Your task to perform on an android device: open sync settings in chrome Image 0: 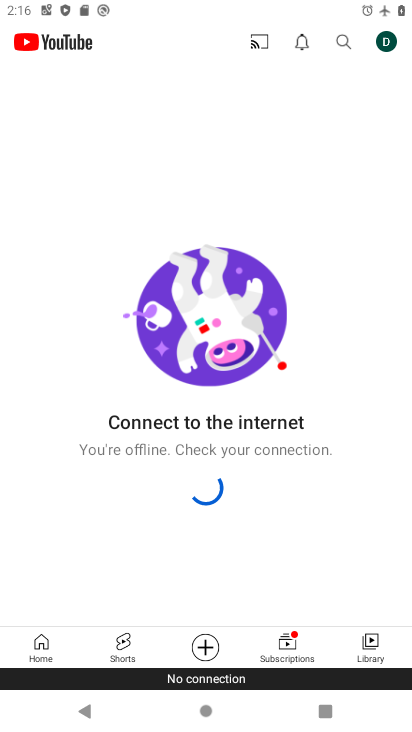
Step 0: drag from (234, 539) to (279, 211)
Your task to perform on an android device: open sync settings in chrome Image 1: 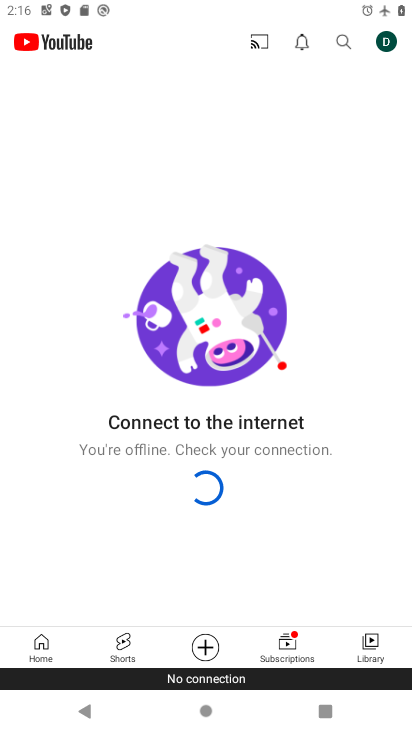
Step 1: drag from (241, 622) to (275, 280)
Your task to perform on an android device: open sync settings in chrome Image 2: 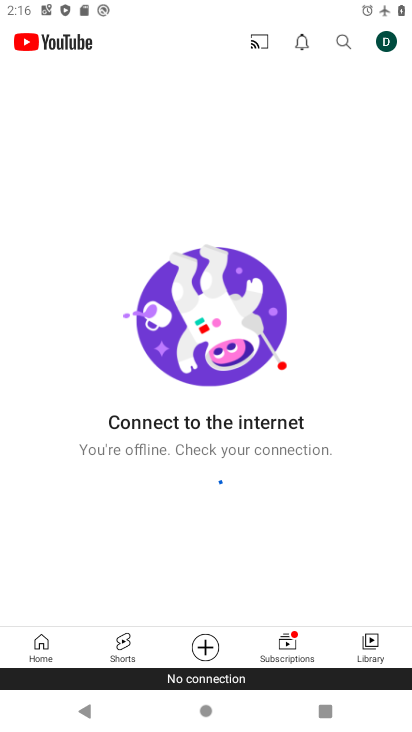
Step 2: drag from (265, 207) to (248, 603)
Your task to perform on an android device: open sync settings in chrome Image 3: 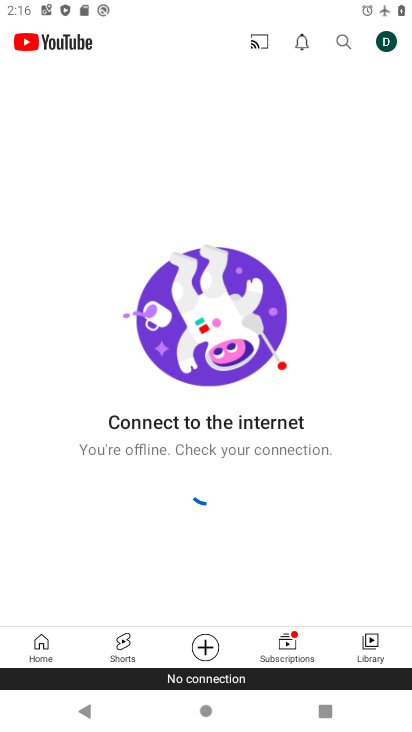
Step 3: drag from (241, 589) to (250, 299)
Your task to perform on an android device: open sync settings in chrome Image 4: 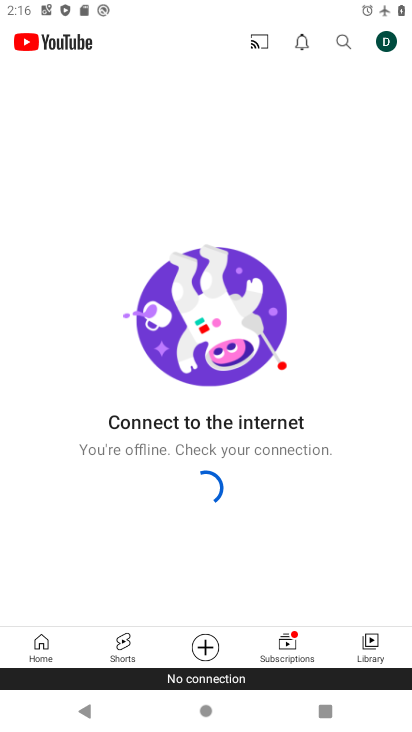
Step 4: drag from (144, 545) to (214, 310)
Your task to perform on an android device: open sync settings in chrome Image 5: 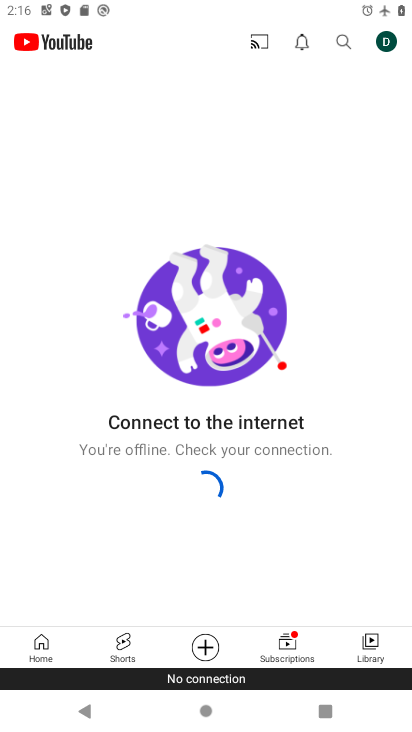
Step 5: drag from (243, 569) to (256, 142)
Your task to perform on an android device: open sync settings in chrome Image 6: 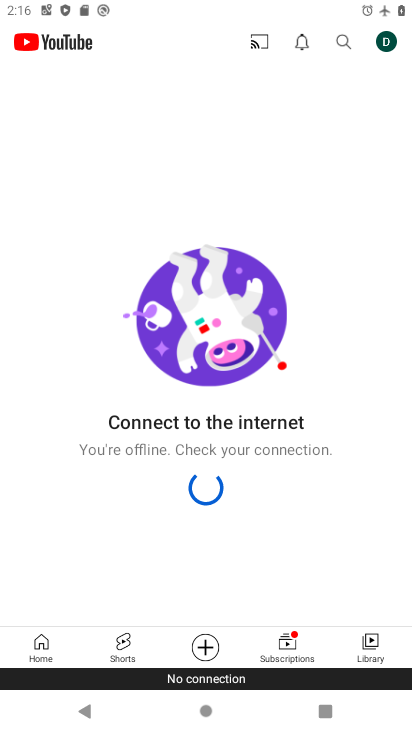
Step 6: press home button
Your task to perform on an android device: open sync settings in chrome Image 7: 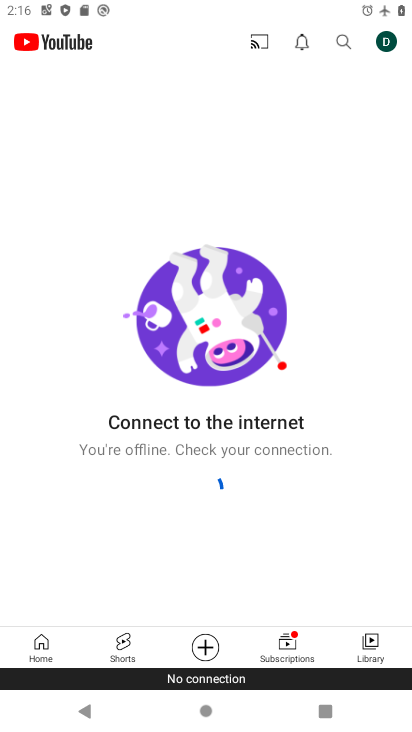
Step 7: press home button
Your task to perform on an android device: open sync settings in chrome Image 8: 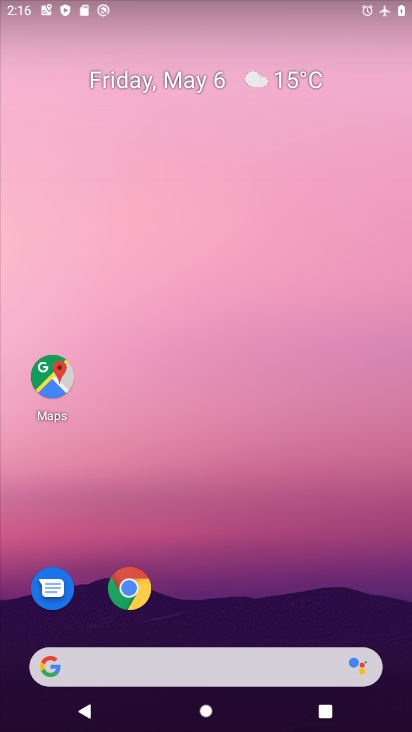
Step 8: drag from (205, 610) to (304, 121)
Your task to perform on an android device: open sync settings in chrome Image 9: 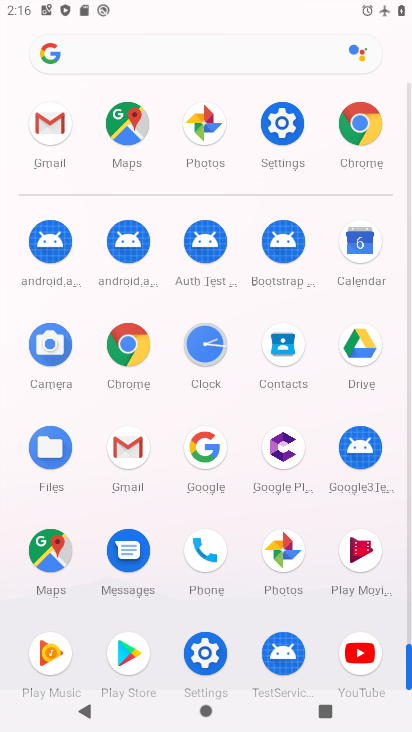
Step 9: click (130, 346)
Your task to perform on an android device: open sync settings in chrome Image 10: 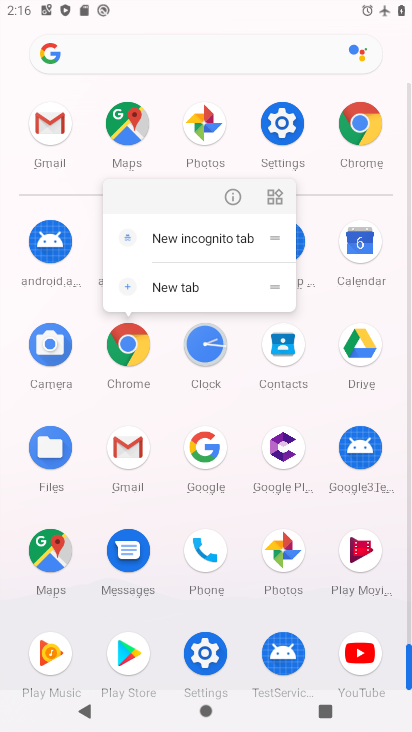
Step 10: click (244, 196)
Your task to perform on an android device: open sync settings in chrome Image 11: 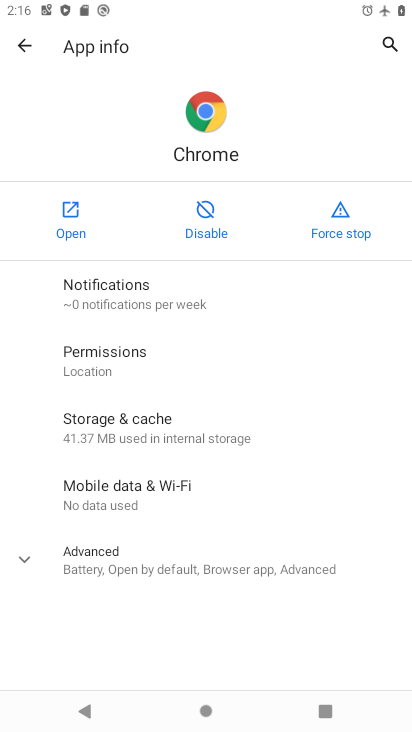
Step 11: click (74, 225)
Your task to perform on an android device: open sync settings in chrome Image 12: 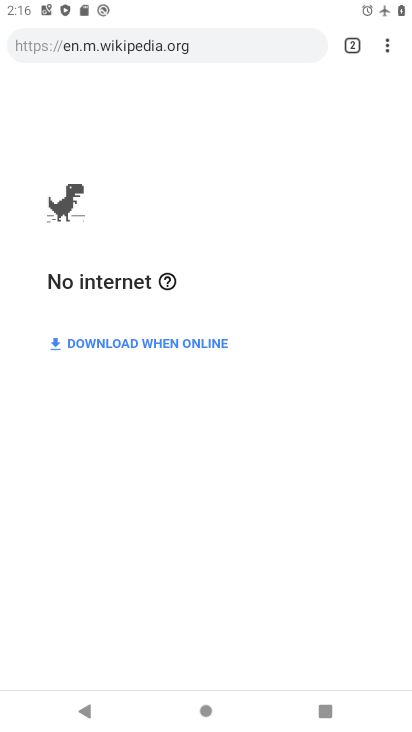
Step 12: drag from (230, 587) to (241, 294)
Your task to perform on an android device: open sync settings in chrome Image 13: 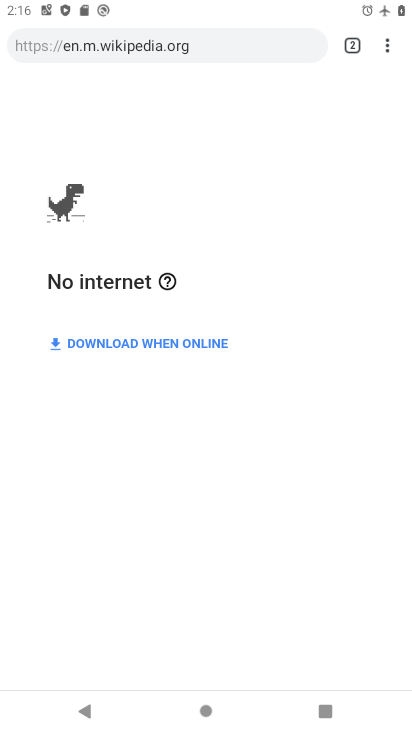
Step 13: click (386, 39)
Your task to perform on an android device: open sync settings in chrome Image 14: 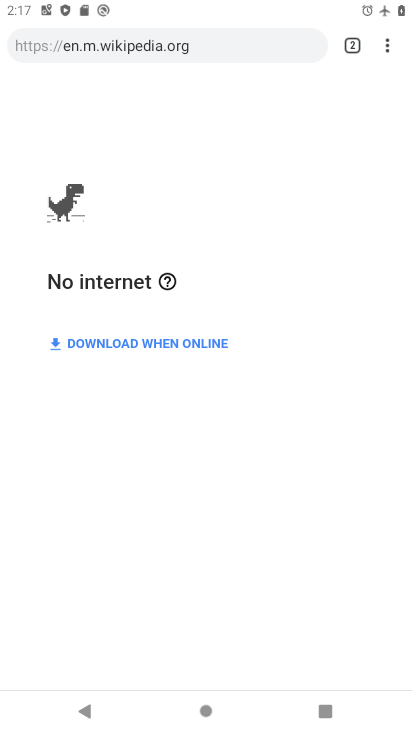
Step 14: click (397, 35)
Your task to perform on an android device: open sync settings in chrome Image 15: 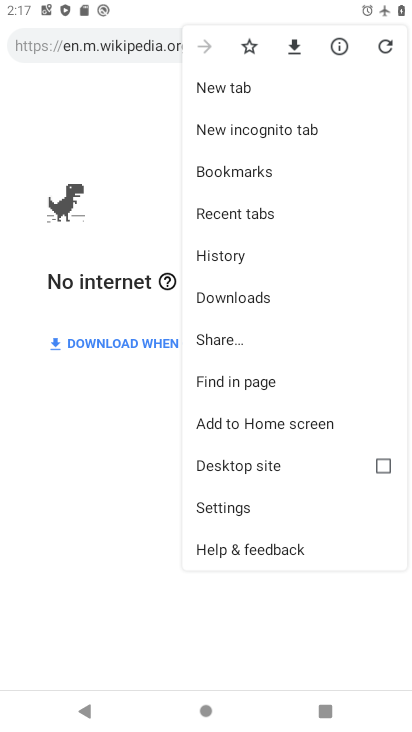
Step 15: click (207, 513)
Your task to perform on an android device: open sync settings in chrome Image 16: 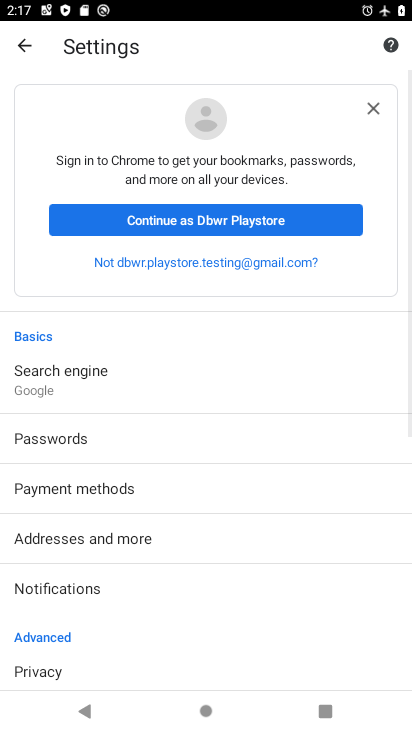
Step 16: drag from (149, 631) to (273, 240)
Your task to perform on an android device: open sync settings in chrome Image 17: 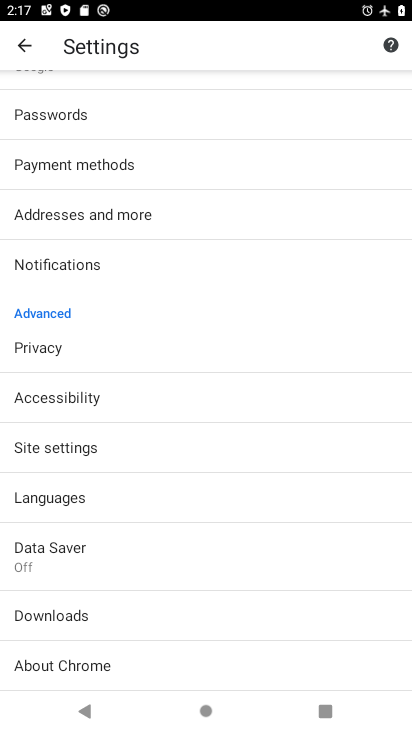
Step 17: click (39, 435)
Your task to perform on an android device: open sync settings in chrome Image 18: 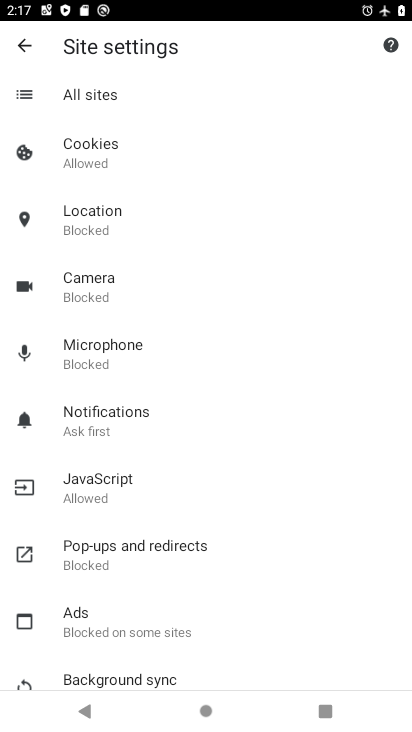
Step 18: drag from (119, 648) to (157, 367)
Your task to perform on an android device: open sync settings in chrome Image 19: 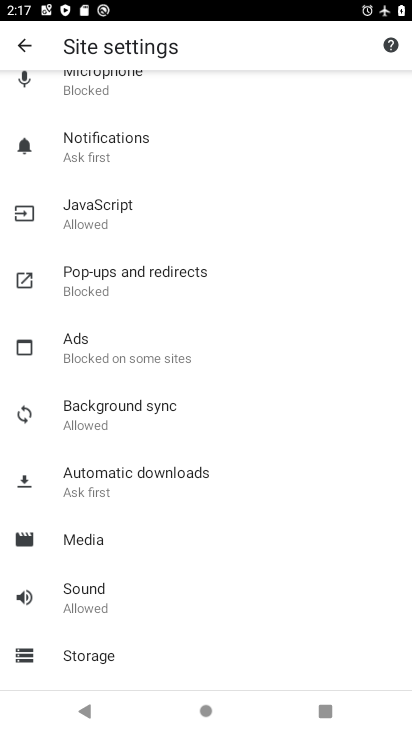
Step 19: click (155, 410)
Your task to perform on an android device: open sync settings in chrome Image 20: 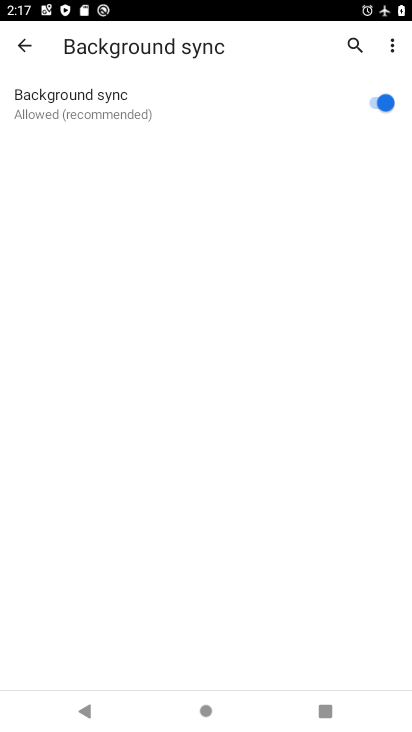
Step 20: task complete